Your task to perform on an android device: Show me popular games on the Play Store Image 0: 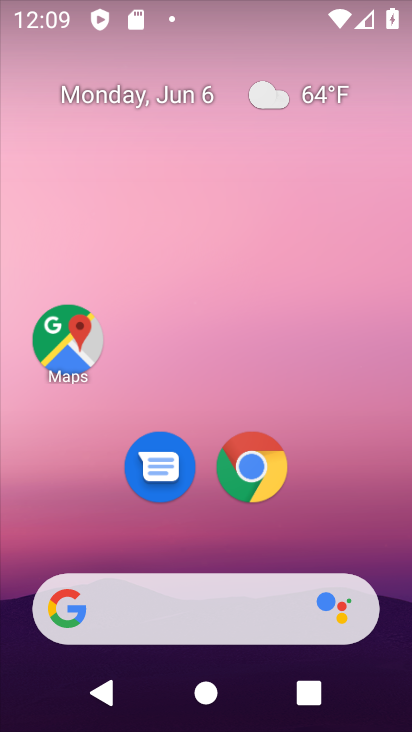
Step 0: drag from (393, 542) to (181, 23)
Your task to perform on an android device: Show me popular games on the Play Store Image 1: 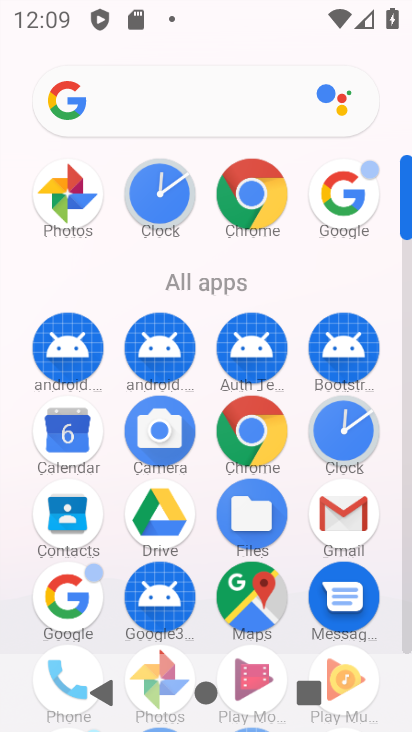
Step 1: drag from (206, 587) to (195, 170)
Your task to perform on an android device: Show me popular games on the Play Store Image 2: 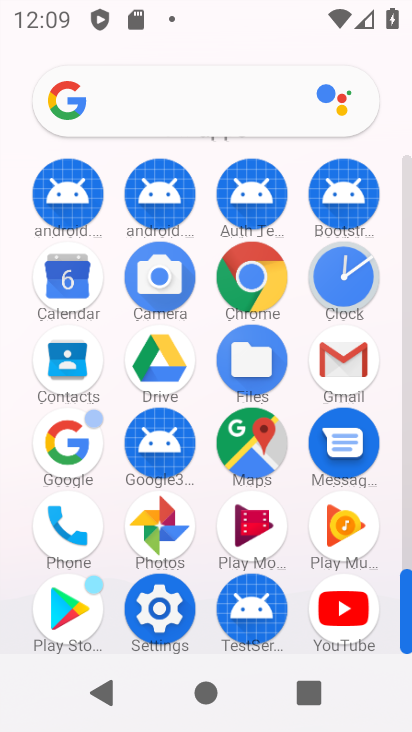
Step 2: click (66, 613)
Your task to perform on an android device: Show me popular games on the Play Store Image 3: 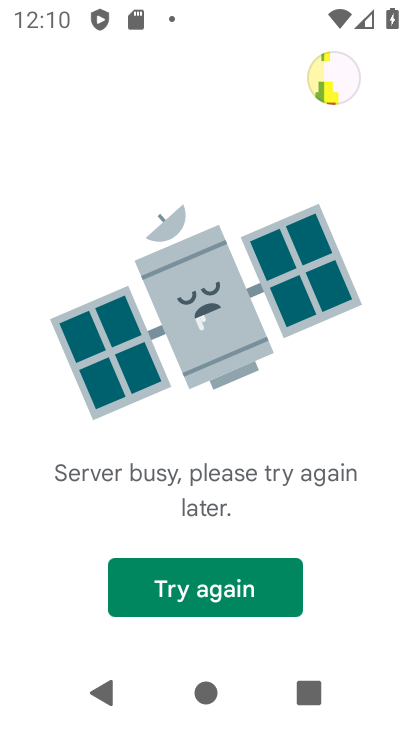
Step 3: task complete